Your task to perform on an android device: Go to display settings Image 0: 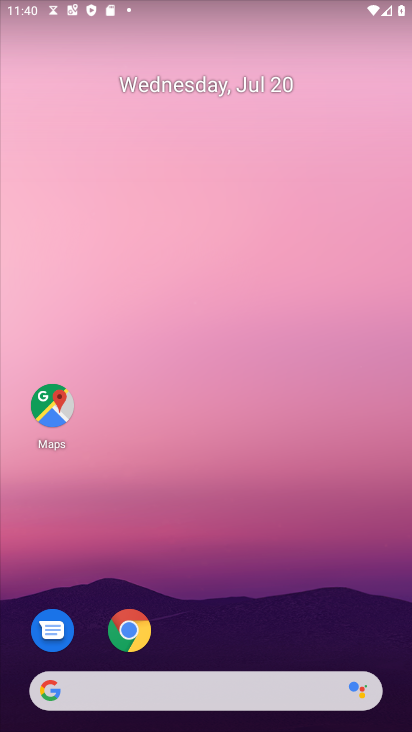
Step 0: drag from (120, 521) to (196, 192)
Your task to perform on an android device: Go to display settings Image 1: 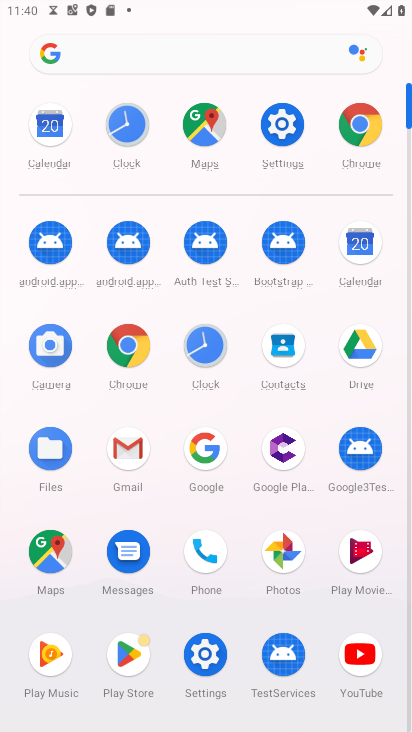
Step 1: click (196, 660)
Your task to perform on an android device: Go to display settings Image 2: 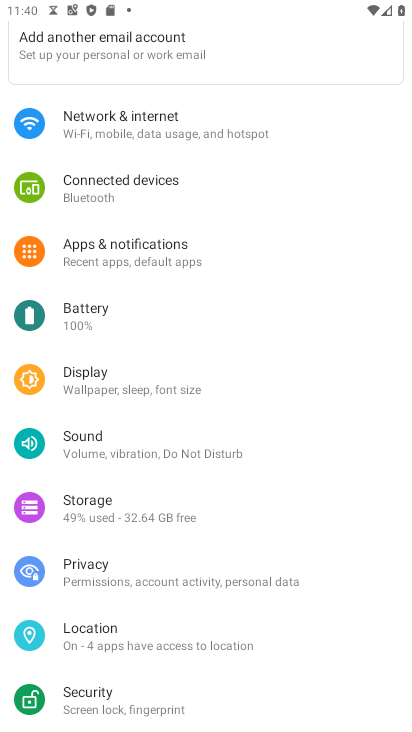
Step 2: click (154, 385)
Your task to perform on an android device: Go to display settings Image 3: 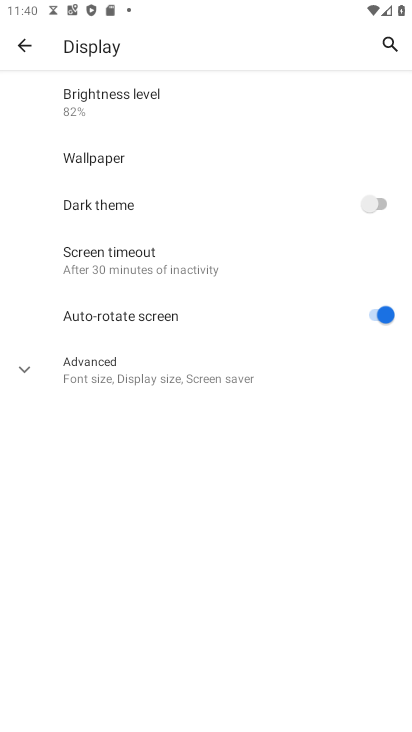
Step 3: task complete